Your task to perform on an android device: toggle translation in the chrome app Image 0: 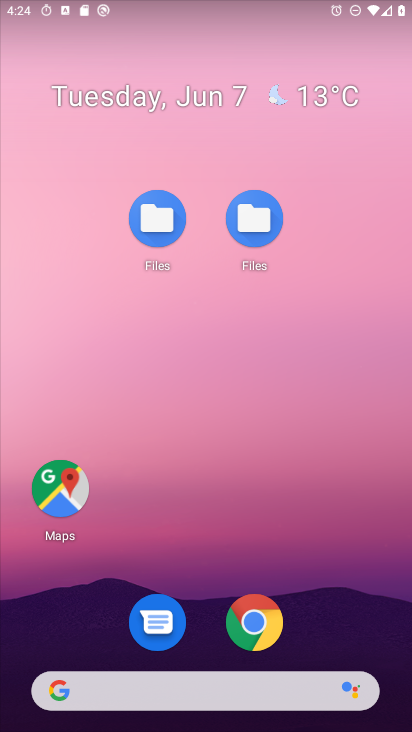
Step 0: click (251, 622)
Your task to perform on an android device: toggle translation in the chrome app Image 1: 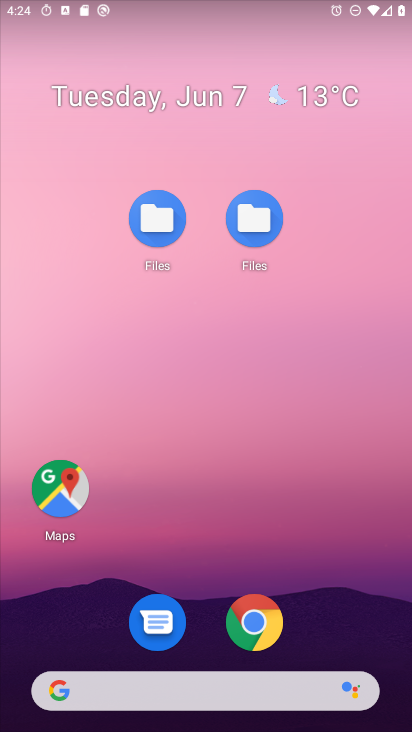
Step 1: click (251, 622)
Your task to perform on an android device: toggle translation in the chrome app Image 2: 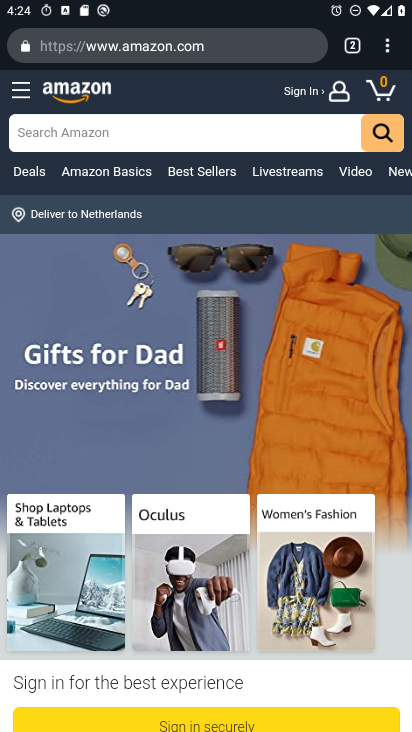
Step 2: click (376, 44)
Your task to perform on an android device: toggle translation in the chrome app Image 3: 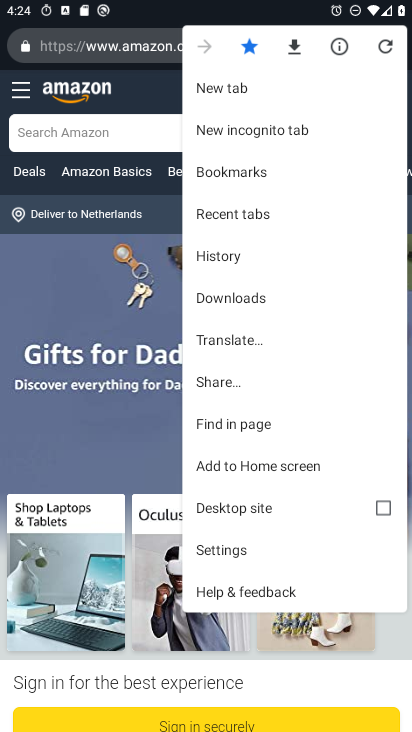
Step 3: click (264, 336)
Your task to perform on an android device: toggle translation in the chrome app Image 4: 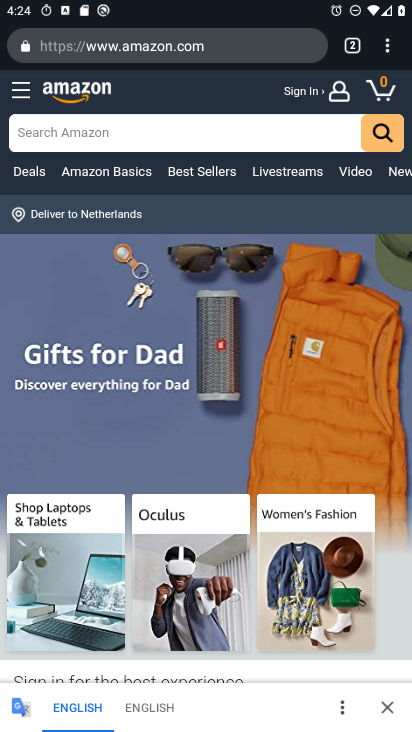
Step 4: click (339, 707)
Your task to perform on an android device: toggle translation in the chrome app Image 5: 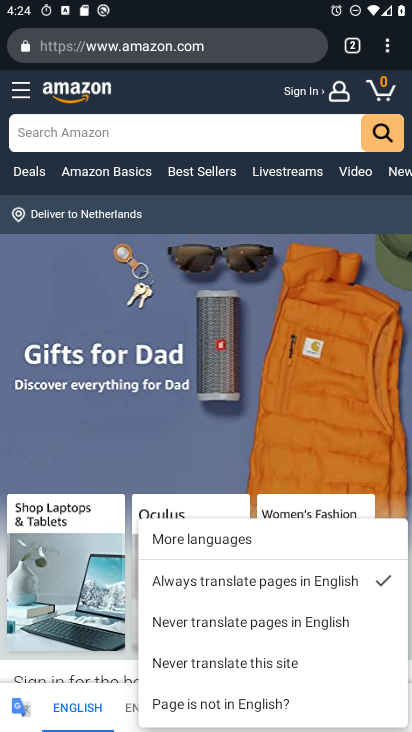
Step 5: click (231, 630)
Your task to perform on an android device: toggle translation in the chrome app Image 6: 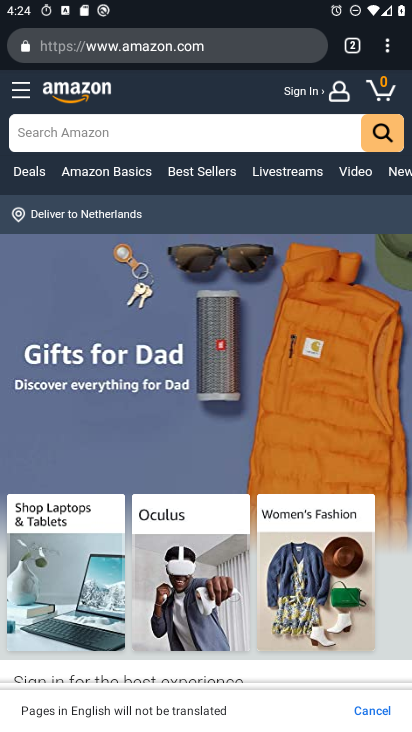
Step 6: task complete